Your task to perform on an android device: open a bookmark in the chrome app Image 0: 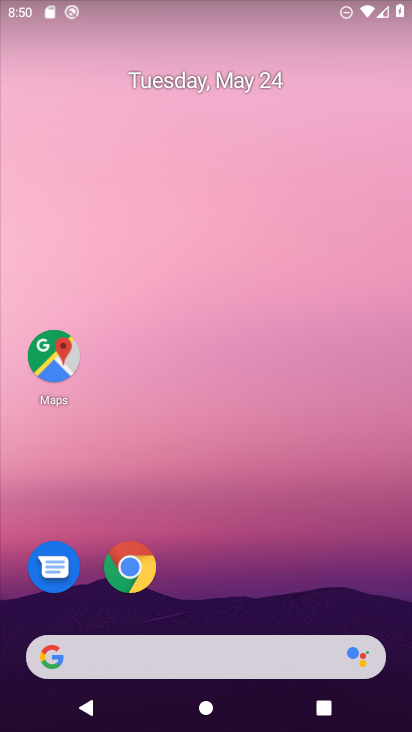
Step 0: press home button
Your task to perform on an android device: open a bookmark in the chrome app Image 1: 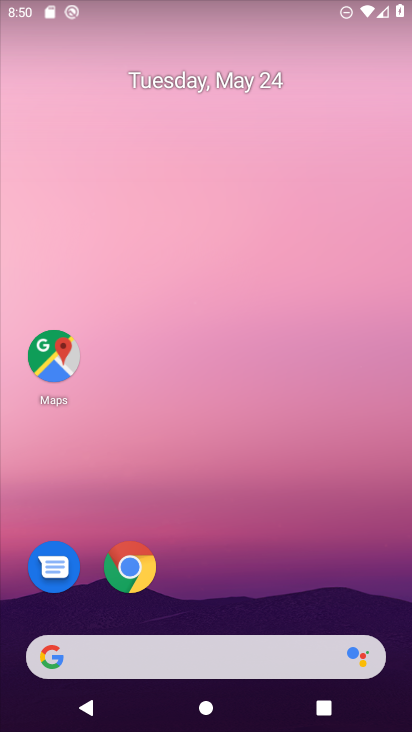
Step 1: click (135, 578)
Your task to perform on an android device: open a bookmark in the chrome app Image 2: 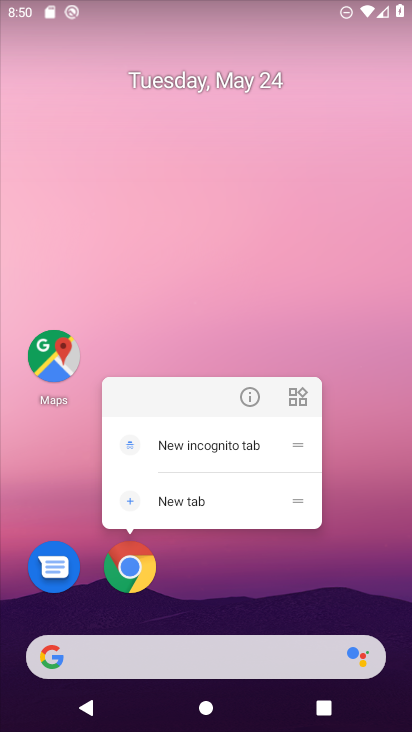
Step 2: click (124, 562)
Your task to perform on an android device: open a bookmark in the chrome app Image 3: 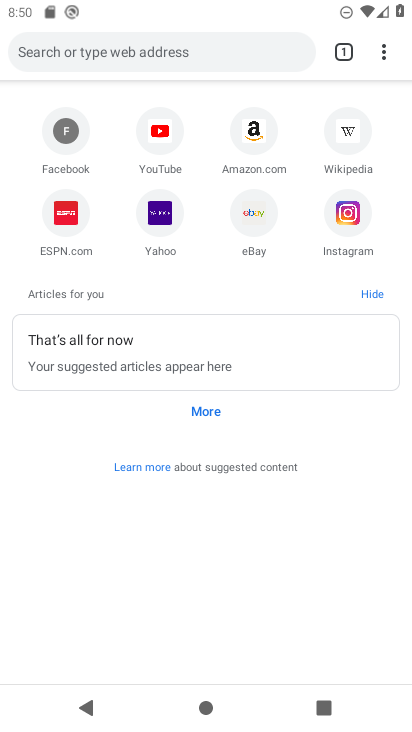
Step 3: task complete